Your task to perform on an android device: find which apps use the phone's location Image 0: 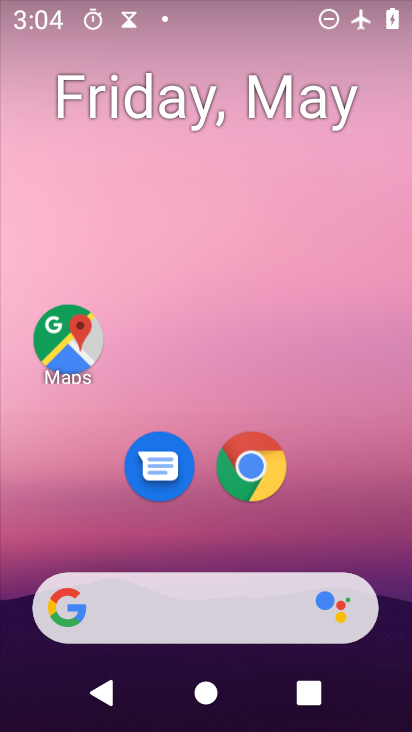
Step 0: drag from (358, 510) to (377, 81)
Your task to perform on an android device: find which apps use the phone's location Image 1: 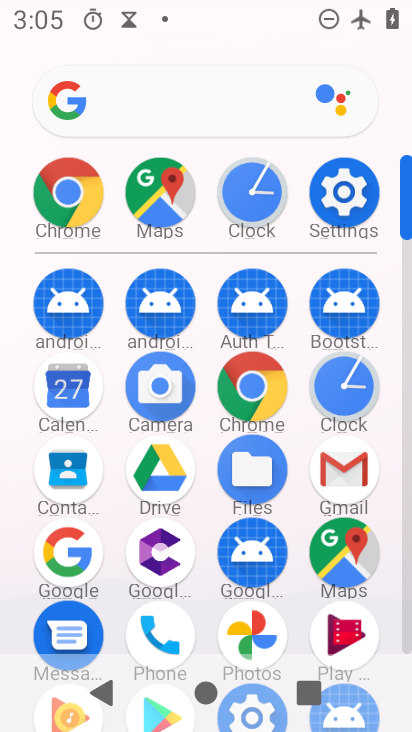
Step 1: click (350, 187)
Your task to perform on an android device: find which apps use the phone's location Image 2: 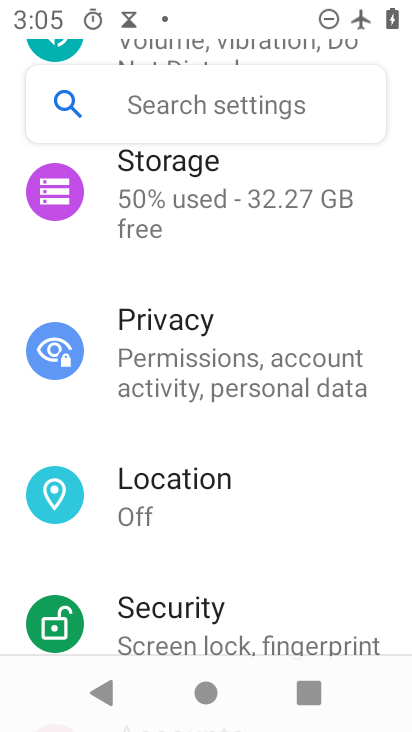
Step 2: click (181, 473)
Your task to perform on an android device: find which apps use the phone's location Image 3: 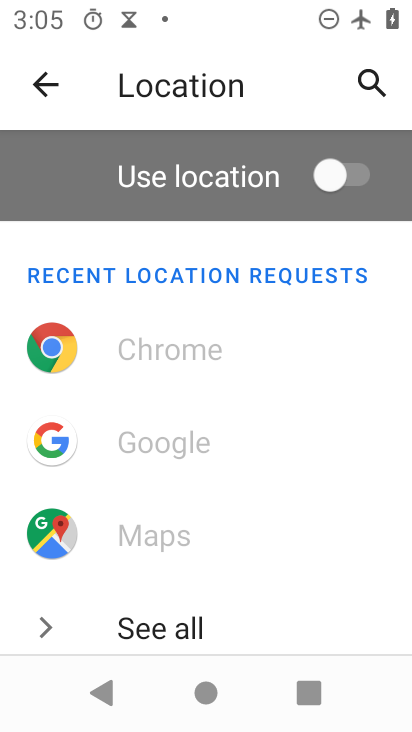
Step 3: drag from (290, 574) to (271, 214)
Your task to perform on an android device: find which apps use the phone's location Image 4: 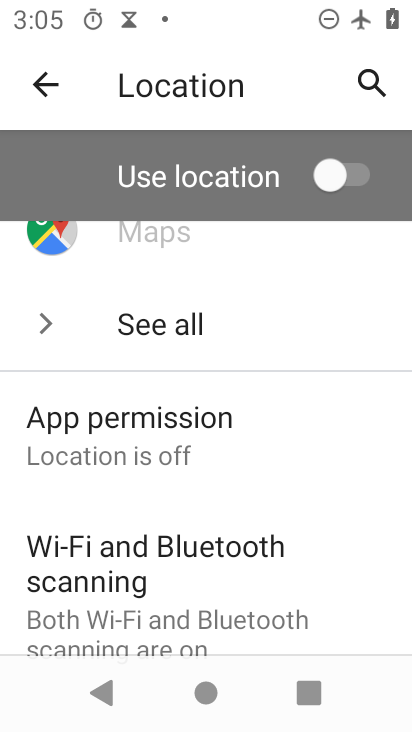
Step 4: click (135, 434)
Your task to perform on an android device: find which apps use the phone's location Image 5: 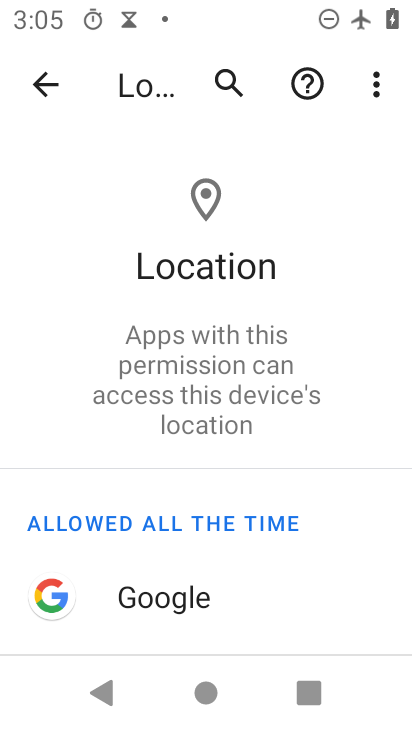
Step 5: task complete